Your task to perform on an android device: Open settings on Google Maps Image 0: 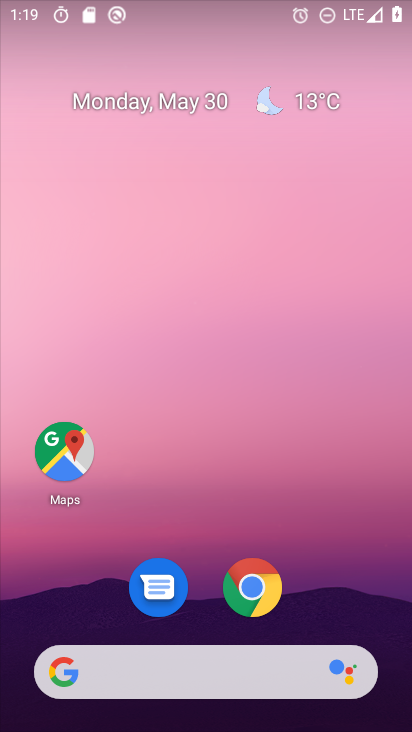
Step 0: drag from (332, 560) to (307, 119)
Your task to perform on an android device: Open settings on Google Maps Image 1: 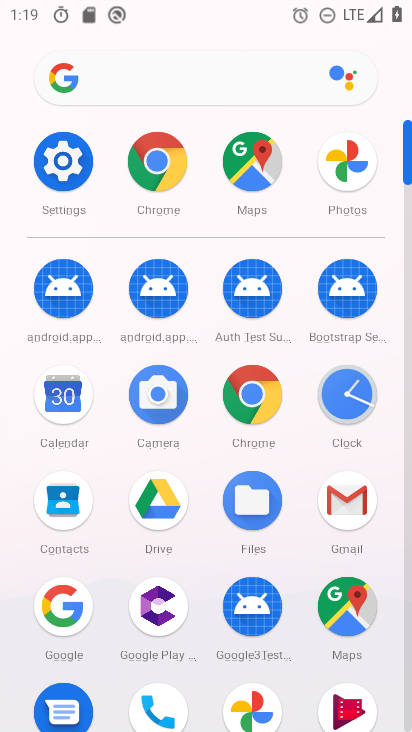
Step 1: click (263, 151)
Your task to perform on an android device: Open settings on Google Maps Image 2: 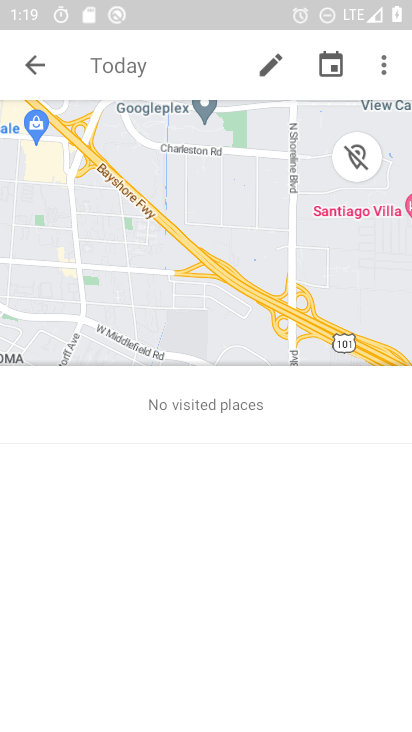
Step 2: click (31, 65)
Your task to perform on an android device: Open settings on Google Maps Image 3: 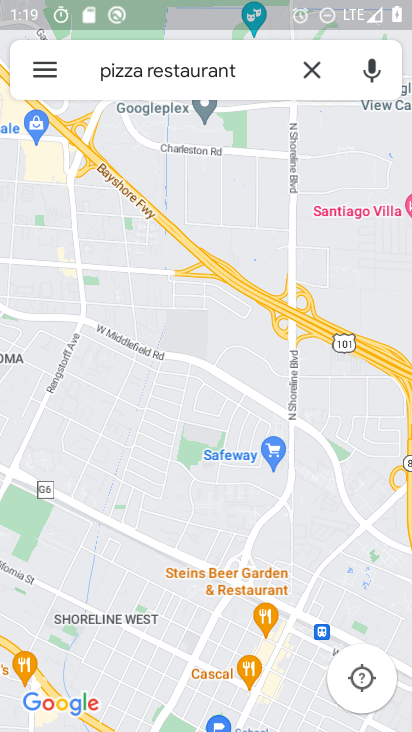
Step 3: click (31, 65)
Your task to perform on an android device: Open settings on Google Maps Image 4: 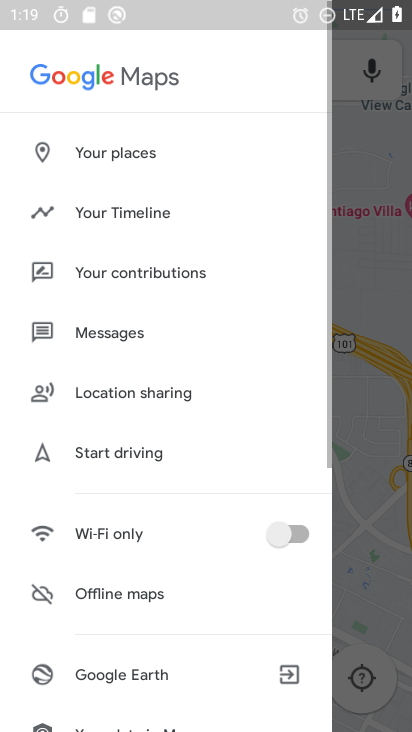
Step 4: drag from (159, 602) to (178, 128)
Your task to perform on an android device: Open settings on Google Maps Image 5: 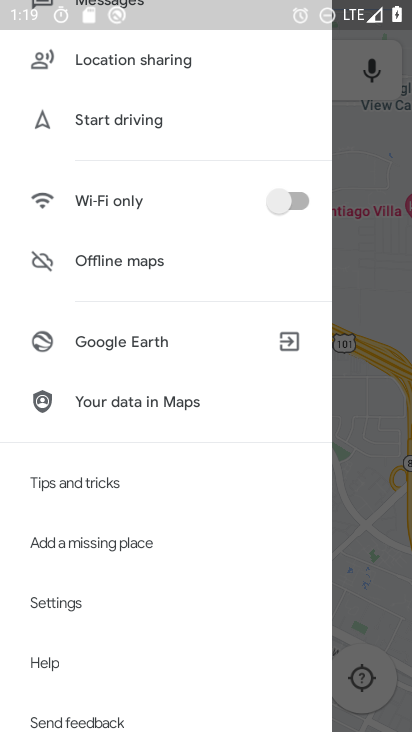
Step 5: click (74, 601)
Your task to perform on an android device: Open settings on Google Maps Image 6: 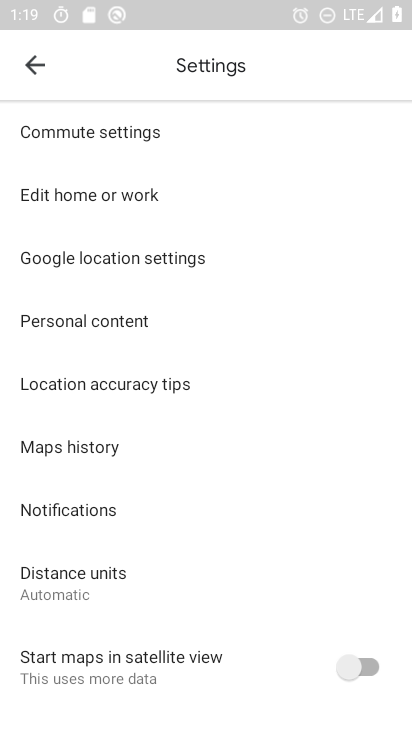
Step 6: task complete